Your task to perform on an android device: change the clock display to show seconds Image 0: 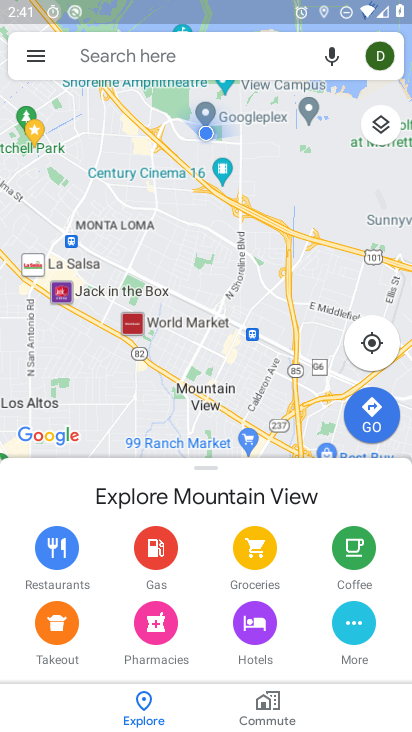
Step 0: press home button
Your task to perform on an android device: change the clock display to show seconds Image 1: 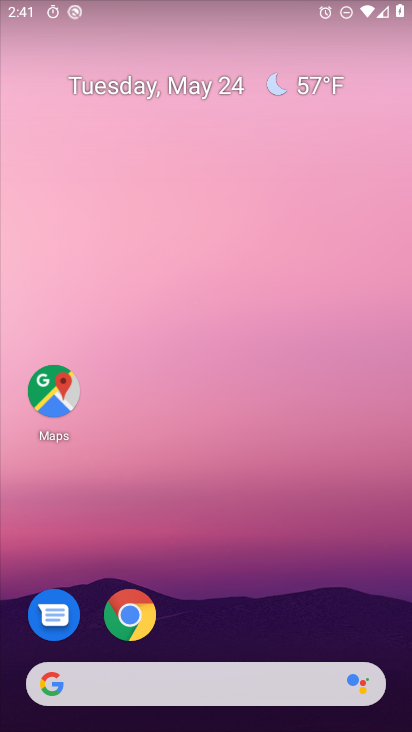
Step 1: drag from (200, 664) to (211, 290)
Your task to perform on an android device: change the clock display to show seconds Image 2: 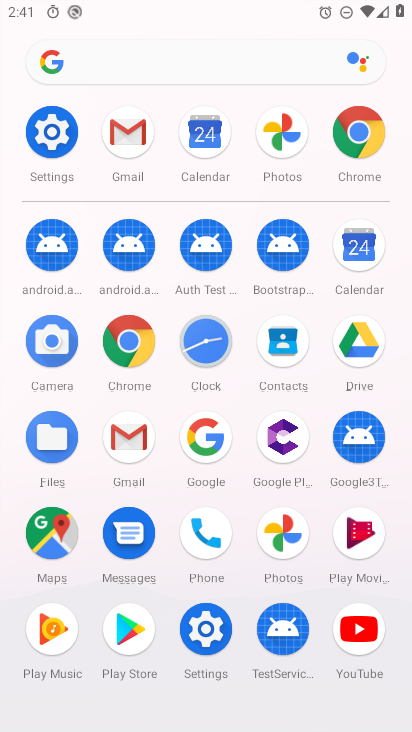
Step 2: click (203, 353)
Your task to perform on an android device: change the clock display to show seconds Image 3: 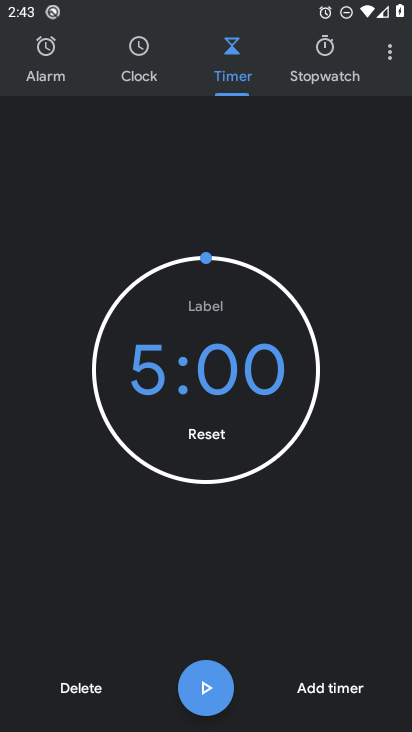
Step 3: click (392, 49)
Your task to perform on an android device: change the clock display to show seconds Image 4: 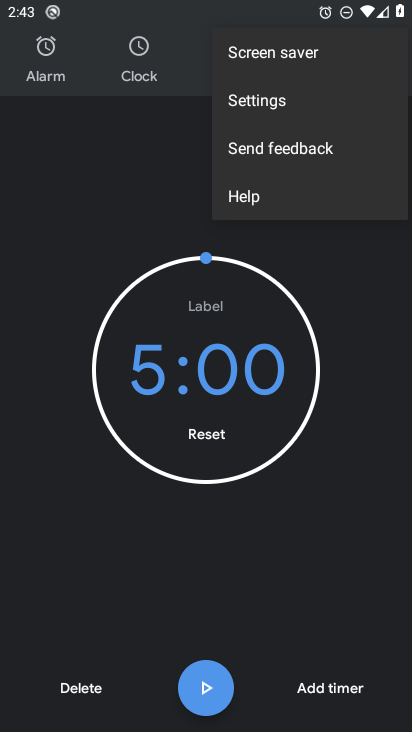
Step 4: click (261, 94)
Your task to perform on an android device: change the clock display to show seconds Image 5: 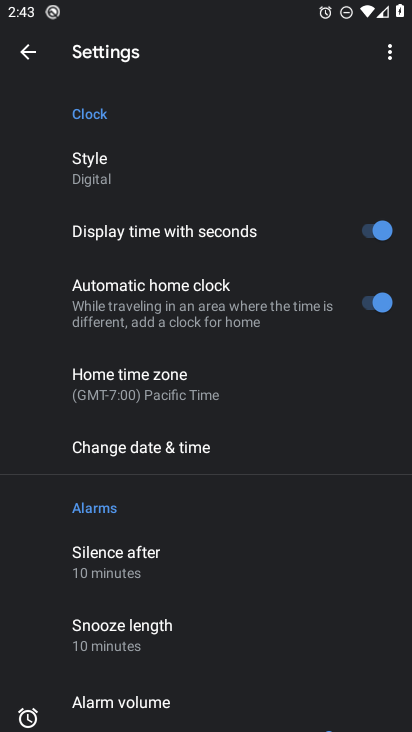
Step 5: task complete